Your task to perform on an android device: turn on bluetooth scan Image 0: 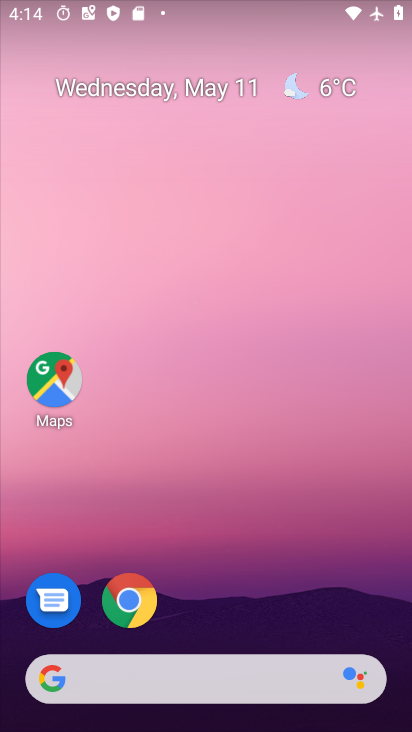
Step 0: drag from (354, 695) to (207, 257)
Your task to perform on an android device: turn on bluetooth scan Image 1: 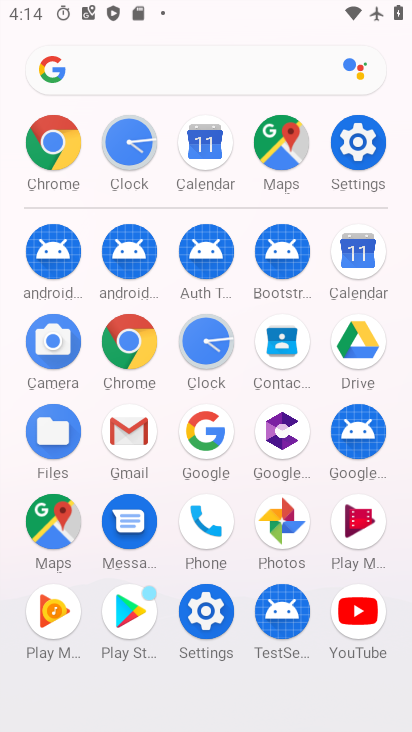
Step 1: click (355, 152)
Your task to perform on an android device: turn on bluetooth scan Image 2: 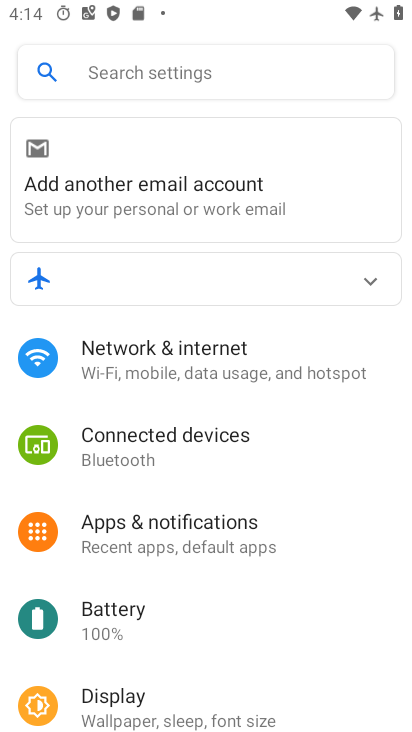
Step 2: drag from (166, 581) to (86, 142)
Your task to perform on an android device: turn on bluetooth scan Image 3: 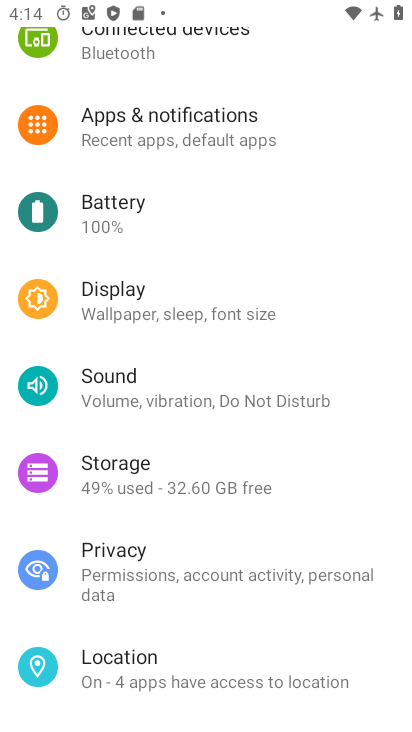
Step 3: drag from (191, 542) to (182, 94)
Your task to perform on an android device: turn on bluetooth scan Image 4: 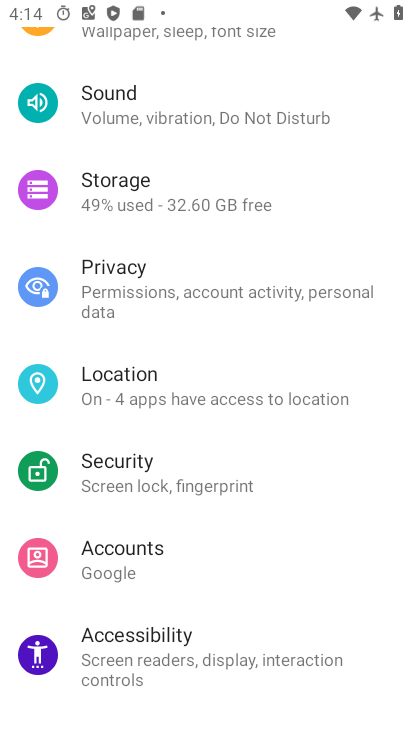
Step 4: drag from (162, 214) to (195, 582)
Your task to perform on an android device: turn on bluetooth scan Image 5: 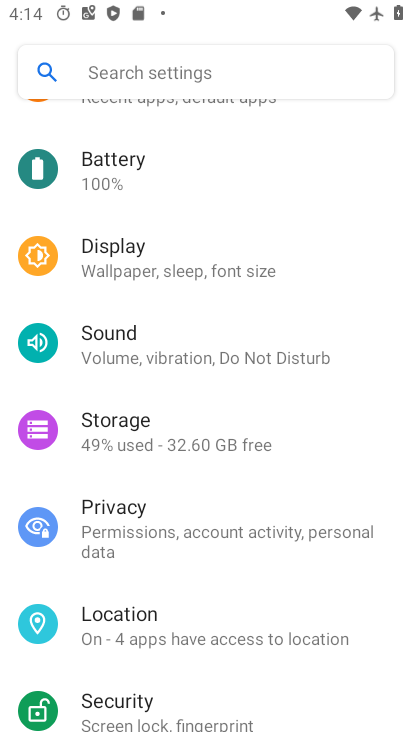
Step 5: drag from (154, 147) to (227, 627)
Your task to perform on an android device: turn on bluetooth scan Image 6: 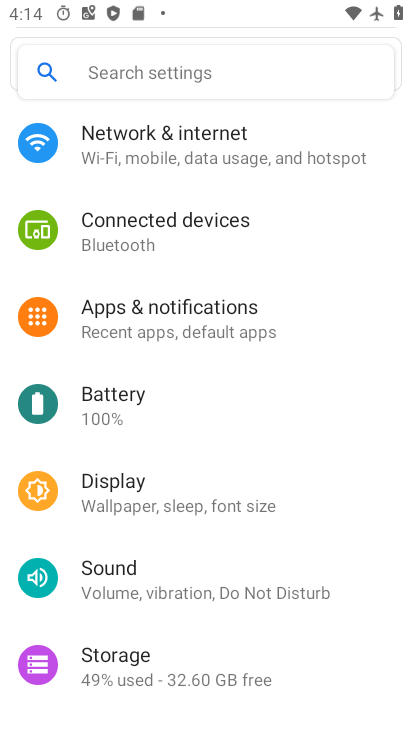
Step 6: click (124, 243)
Your task to perform on an android device: turn on bluetooth scan Image 7: 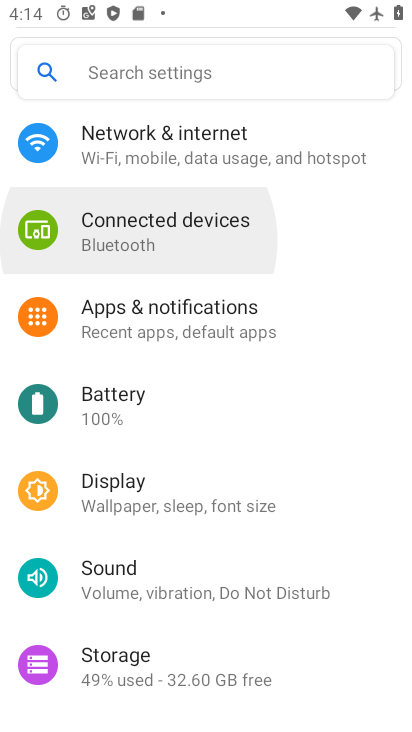
Step 7: click (122, 244)
Your task to perform on an android device: turn on bluetooth scan Image 8: 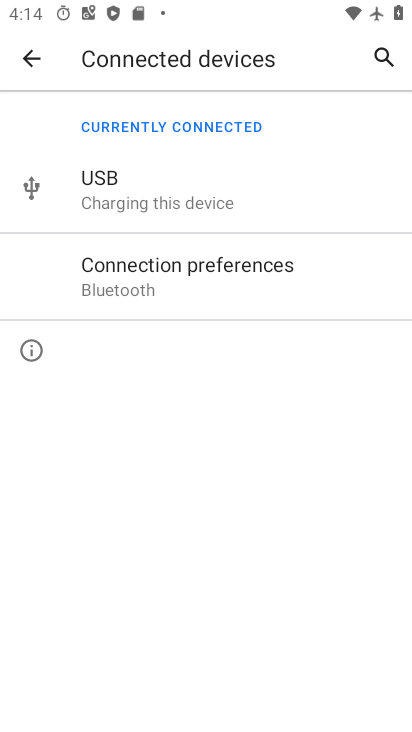
Step 8: click (35, 56)
Your task to perform on an android device: turn on bluetooth scan Image 9: 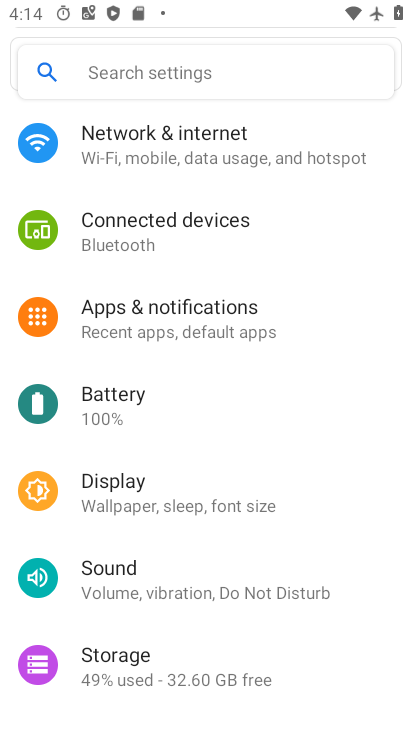
Step 9: click (166, 309)
Your task to perform on an android device: turn on bluetooth scan Image 10: 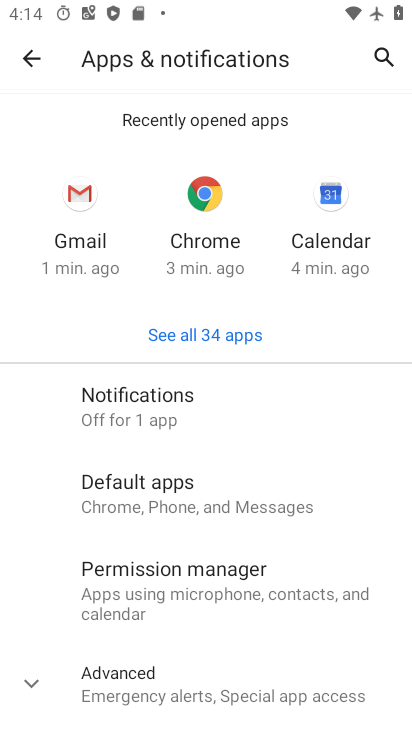
Step 10: click (113, 407)
Your task to perform on an android device: turn on bluetooth scan Image 11: 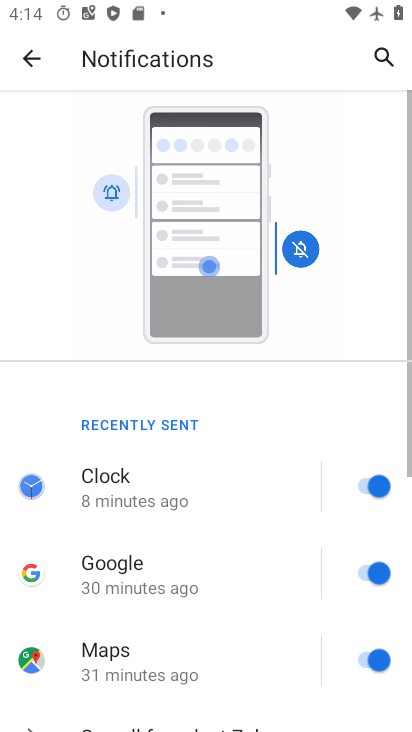
Step 11: drag from (152, 478) to (121, 87)
Your task to perform on an android device: turn on bluetooth scan Image 12: 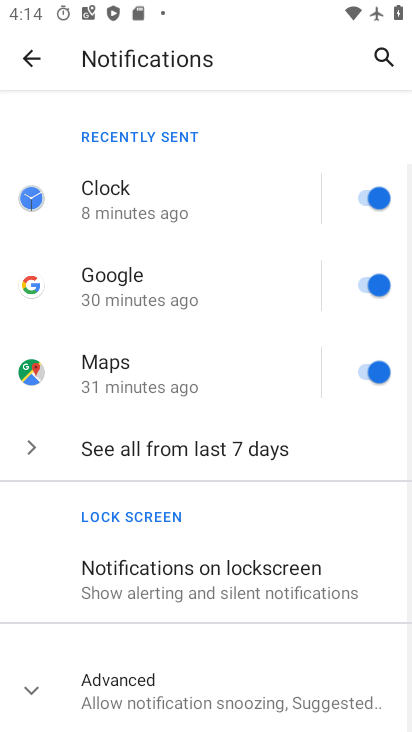
Step 12: drag from (220, 422) to (229, 95)
Your task to perform on an android device: turn on bluetooth scan Image 13: 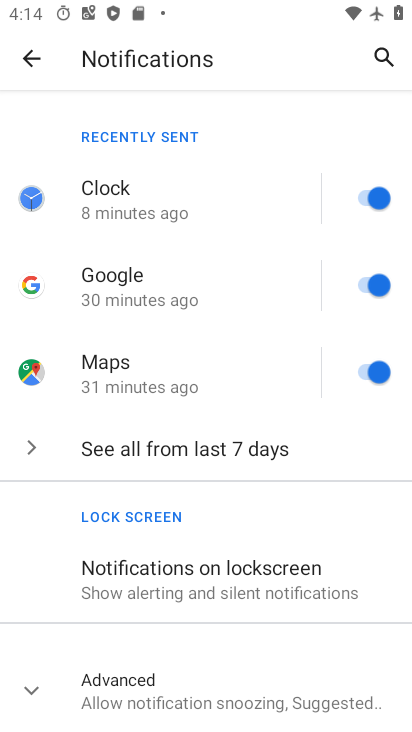
Step 13: drag from (200, 632) to (267, 203)
Your task to perform on an android device: turn on bluetooth scan Image 14: 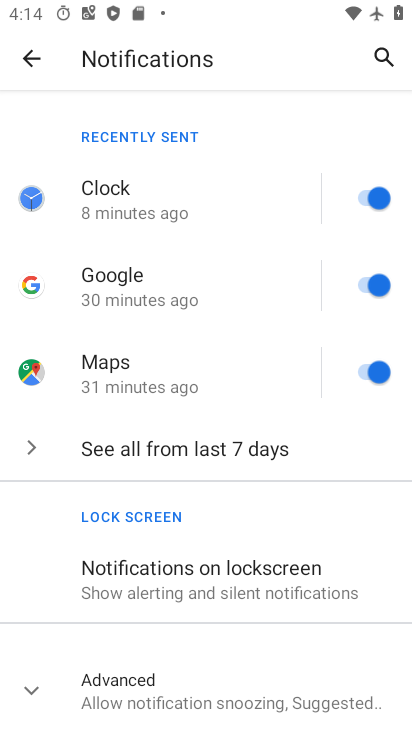
Step 14: click (113, 685)
Your task to perform on an android device: turn on bluetooth scan Image 15: 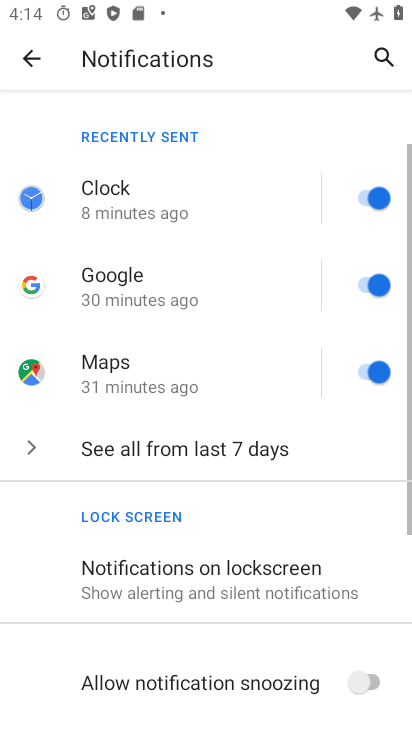
Step 15: drag from (161, 576) to (181, 146)
Your task to perform on an android device: turn on bluetooth scan Image 16: 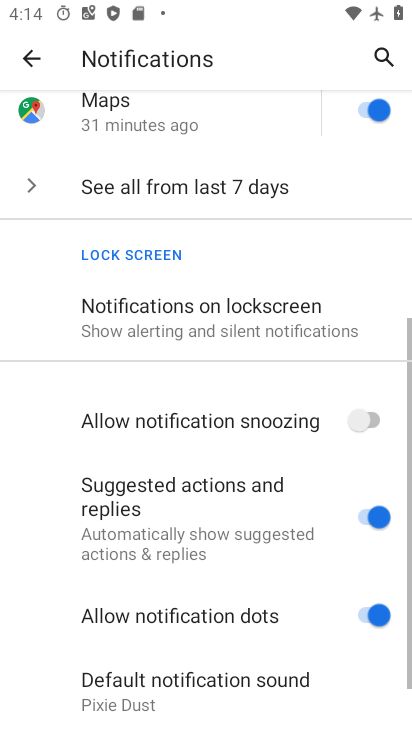
Step 16: drag from (236, 553) to (309, 162)
Your task to perform on an android device: turn on bluetooth scan Image 17: 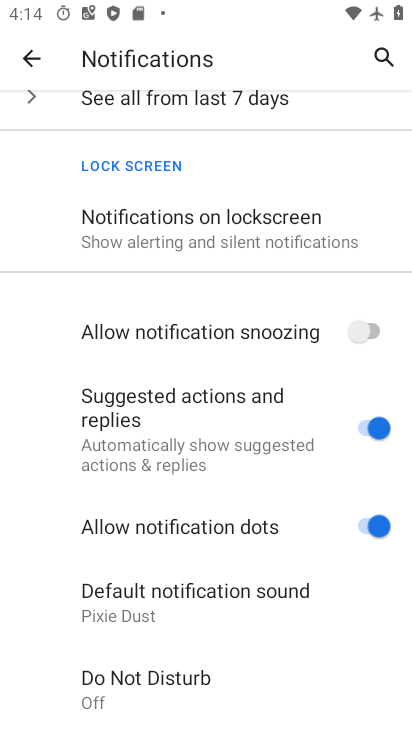
Step 17: drag from (180, 467) to (186, 35)
Your task to perform on an android device: turn on bluetooth scan Image 18: 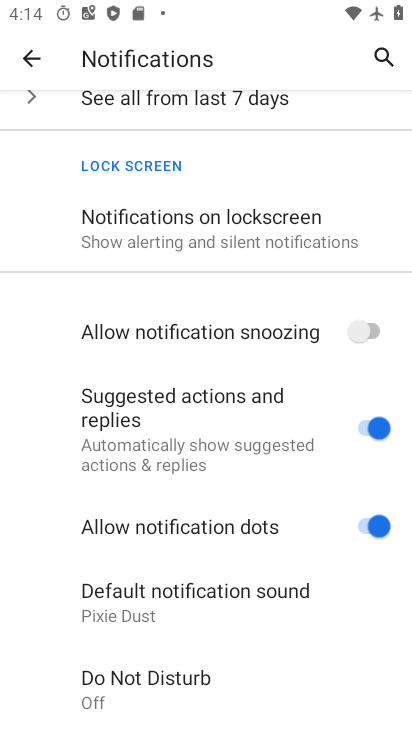
Step 18: drag from (113, 249) to (162, 637)
Your task to perform on an android device: turn on bluetooth scan Image 19: 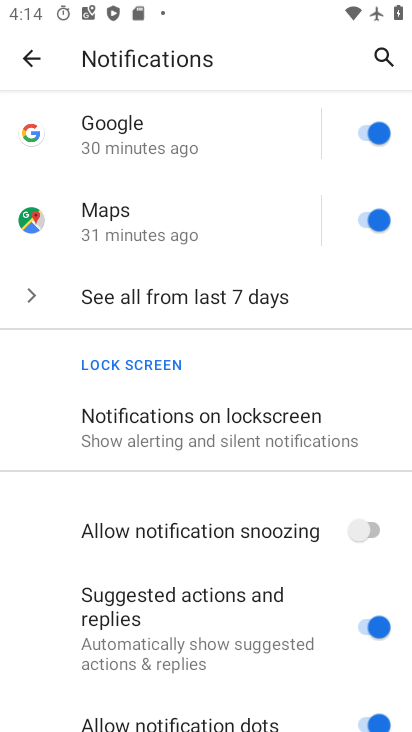
Step 19: click (28, 52)
Your task to perform on an android device: turn on bluetooth scan Image 20: 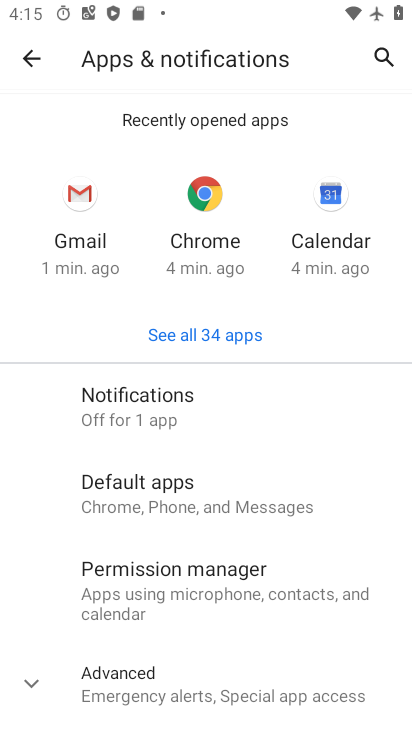
Step 20: click (22, 50)
Your task to perform on an android device: turn on bluetooth scan Image 21: 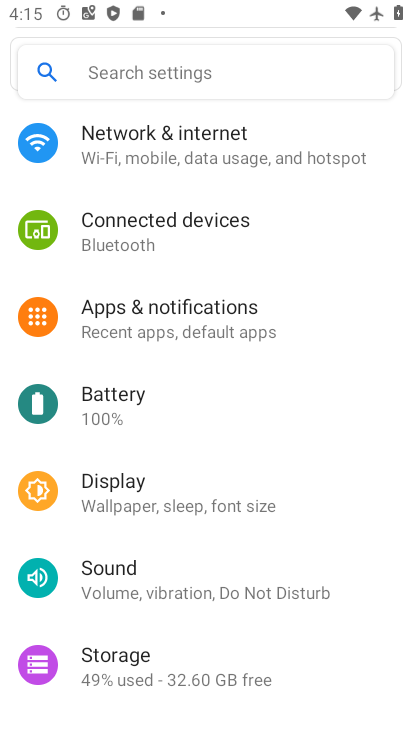
Step 21: click (134, 340)
Your task to perform on an android device: turn on bluetooth scan Image 22: 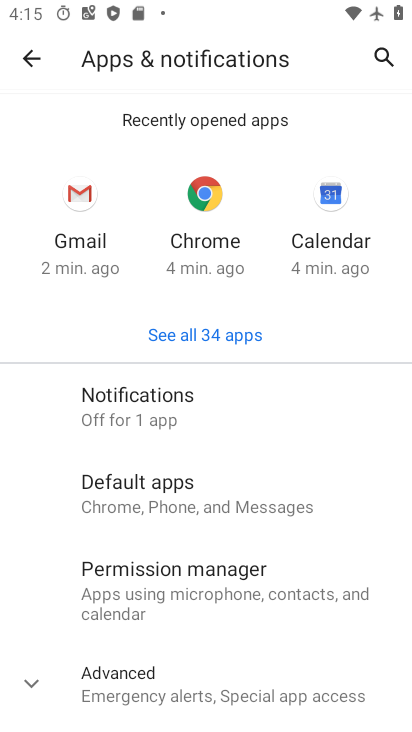
Step 22: click (108, 387)
Your task to perform on an android device: turn on bluetooth scan Image 23: 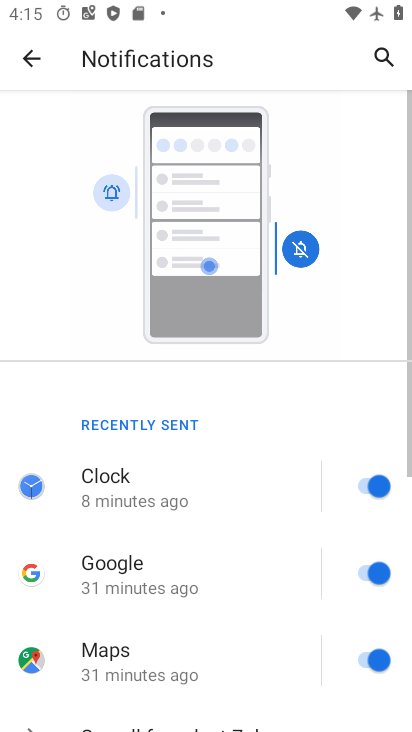
Step 23: drag from (202, 531) to (123, 36)
Your task to perform on an android device: turn on bluetooth scan Image 24: 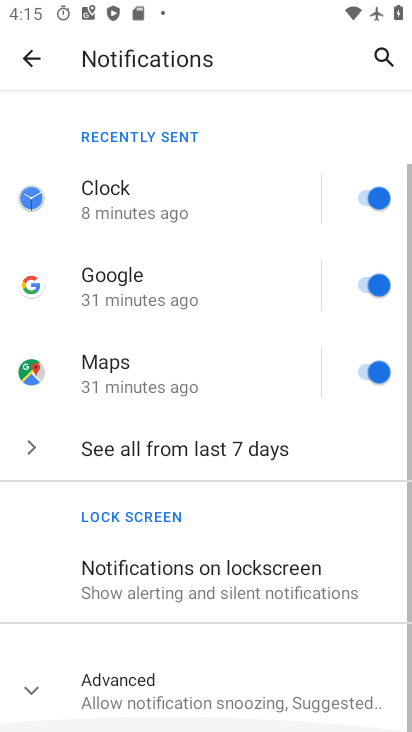
Step 24: drag from (223, 503) to (227, 125)
Your task to perform on an android device: turn on bluetooth scan Image 25: 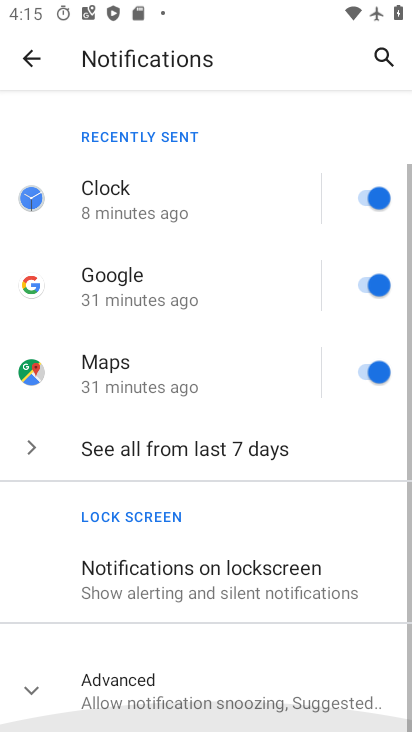
Step 25: drag from (227, 341) to (227, 210)
Your task to perform on an android device: turn on bluetooth scan Image 26: 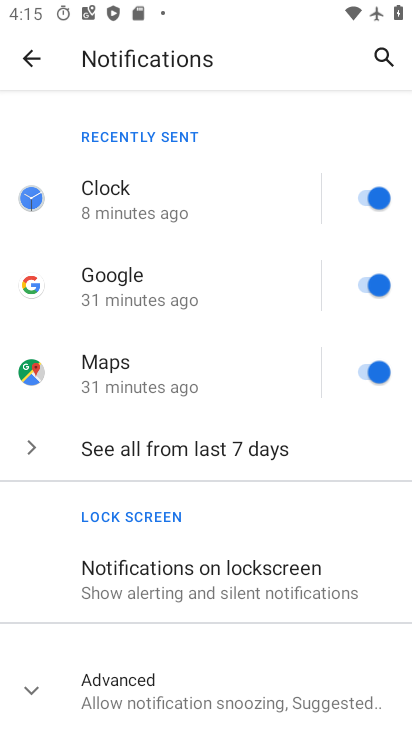
Step 26: click (118, 688)
Your task to perform on an android device: turn on bluetooth scan Image 27: 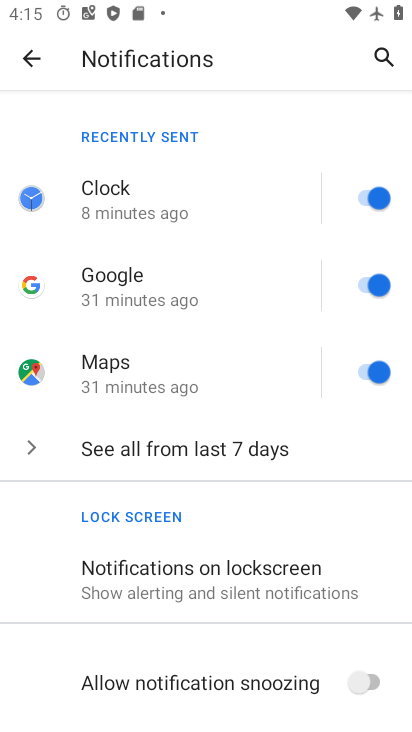
Step 27: drag from (199, 632) to (110, 211)
Your task to perform on an android device: turn on bluetooth scan Image 28: 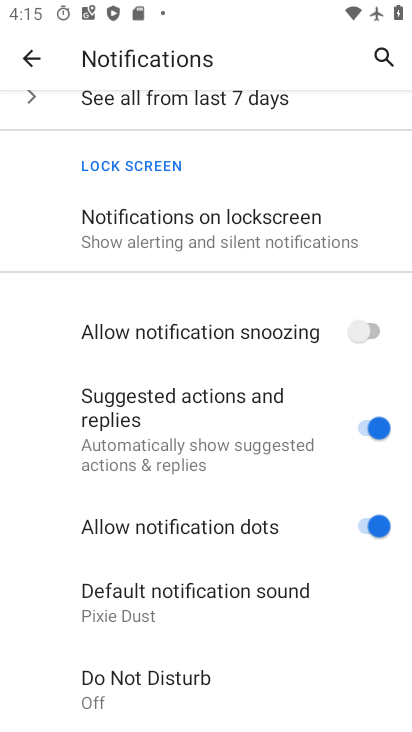
Step 28: drag from (197, 604) to (165, 260)
Your task to perform on an android device: turn on bluetooth scan Image 29: 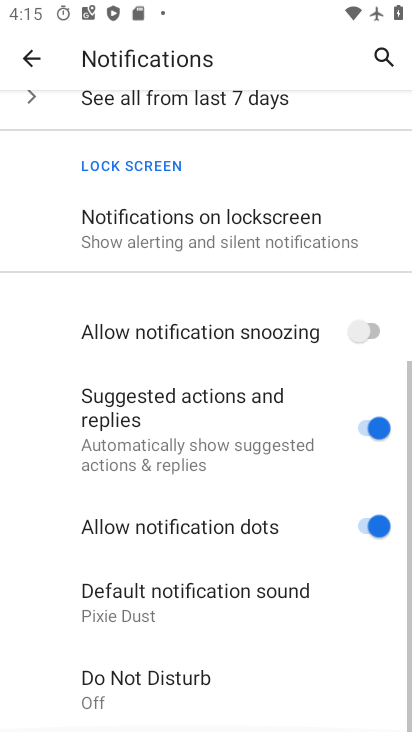
Step 29: click (152, 199)
Your task to perform on an android device: turn on bluetooth scan Image 30: 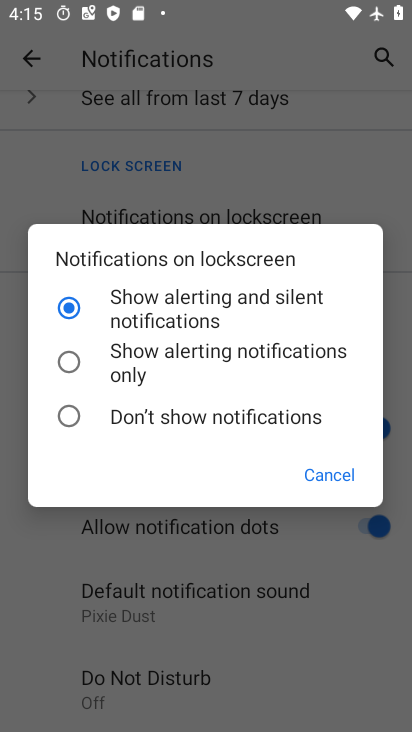
Step 30: drag from (166, 312) to (215, 651)
Your task to perform on an android device: turn on bluetooth scan Image 31: 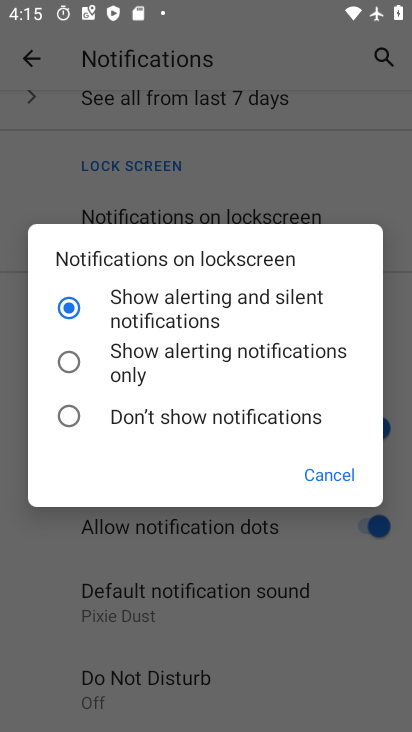
Step 31: click (339, 477)
Your task to perform on an android device: turn on bluetooth scan Image 32: 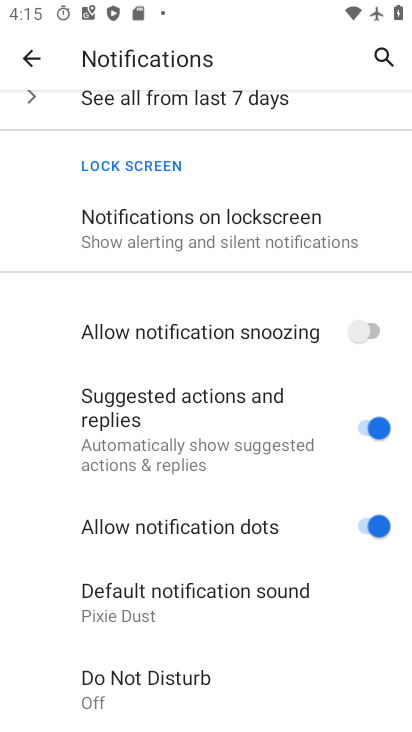
Step 32: drag from (156, 258) to (173, 580)
Your task to perform on an android device: turn on bluetooth scan Image 33: 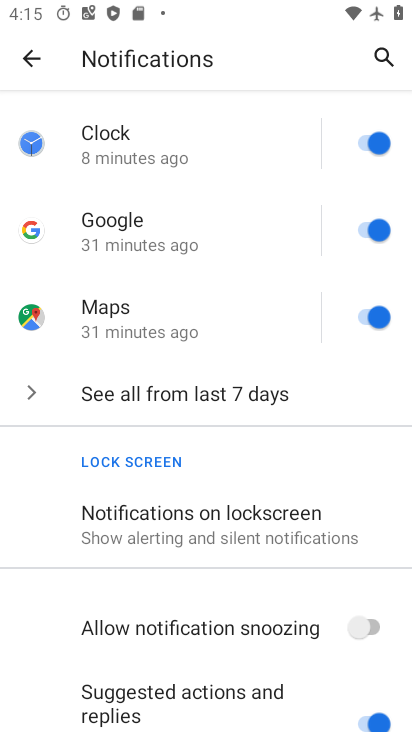
Step 33: click (32, 55)
Your task to perform on an android device: turn on bluetooth scan Image 34: 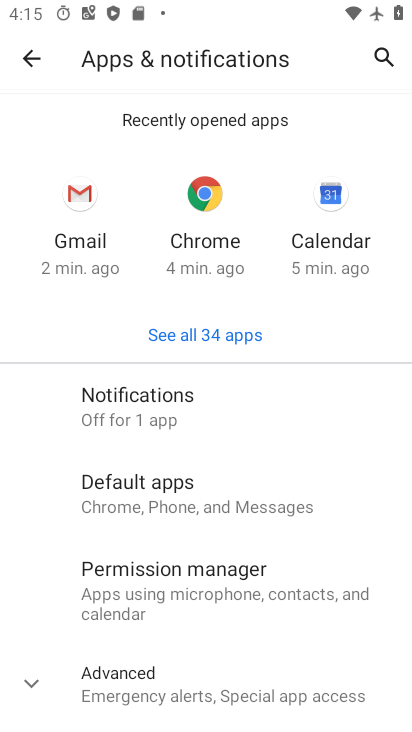
Step 34: click (31, 80)
Your task to perform on an android device: turn on bluetooth scan Image 35: 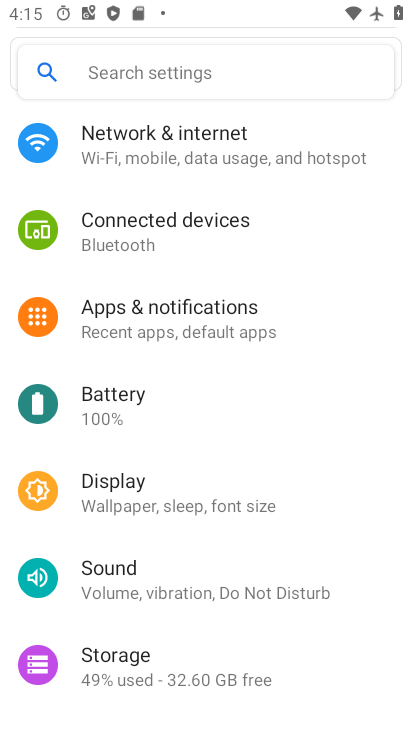
Step 35: drag from (163, 475) to (122, 142)
Your task to perform on an android device: turn on bluetooth scan Image 36: 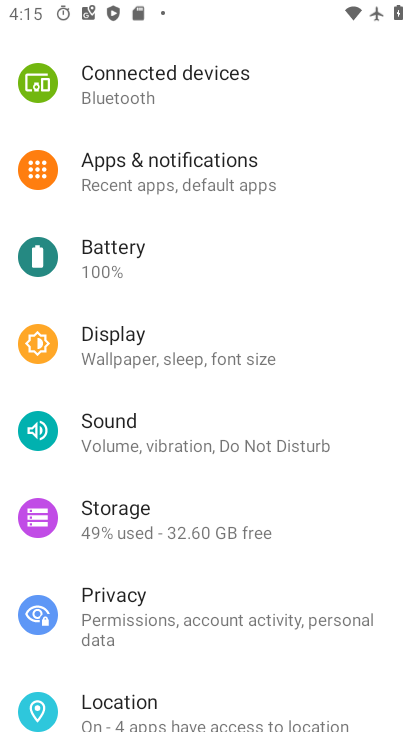
Step 36: click (134, 708)
Your task to perform on an android device: turn on bluetooth scan Image 37: 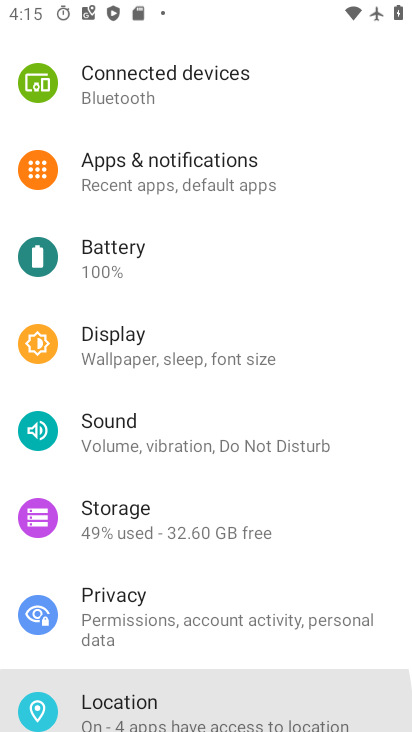
Step 37: click (133, 708)
Your task to perform on an android device: turn on bluetooth scan Image 38: 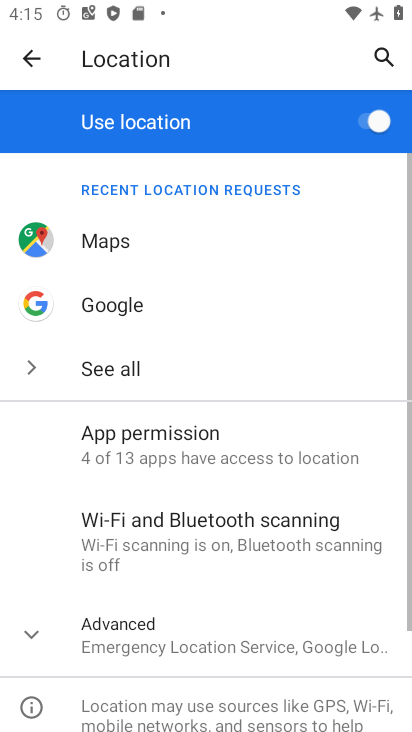
Step 38: click (186, 536)
Your task to perform on an android device: turn on bluetooth scan Image 39: 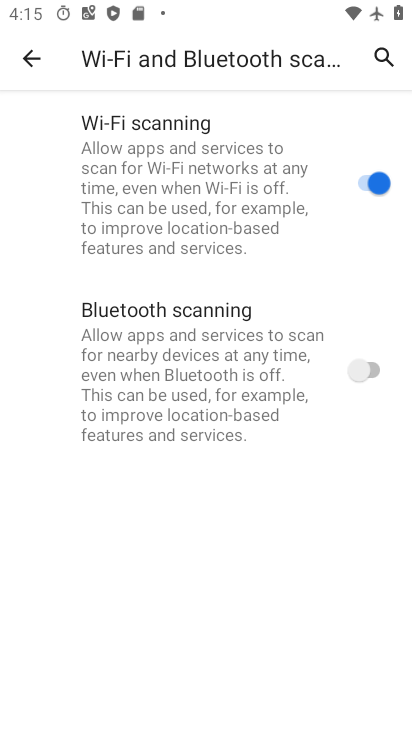
Step 39: click (364, 375)
Your task to perform on an android device: turn on bluetooth scan Image 40: 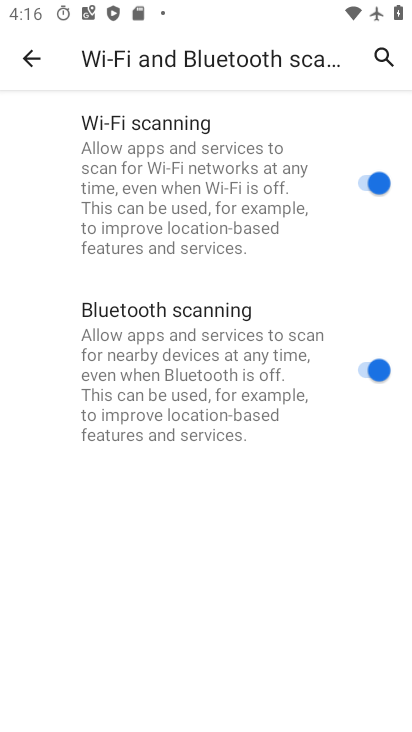
Step 40: task complete